Your task to perform on an android device: Do I have any events today? Image 0: 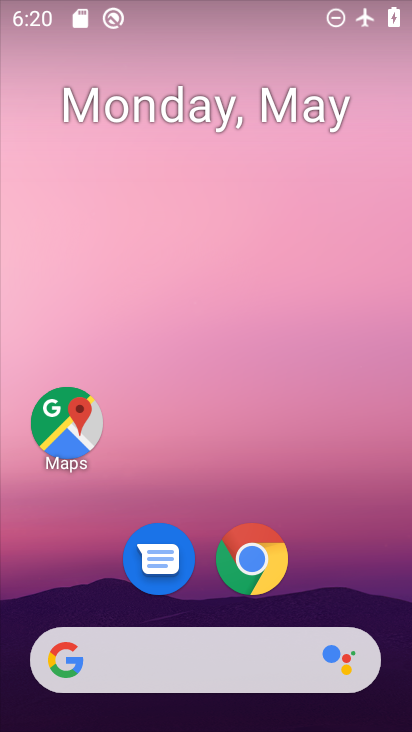
Step 0: drag from (309, 513) to (252, 65)
Your task to perform on an android device: Do I have any events today? Image 1: 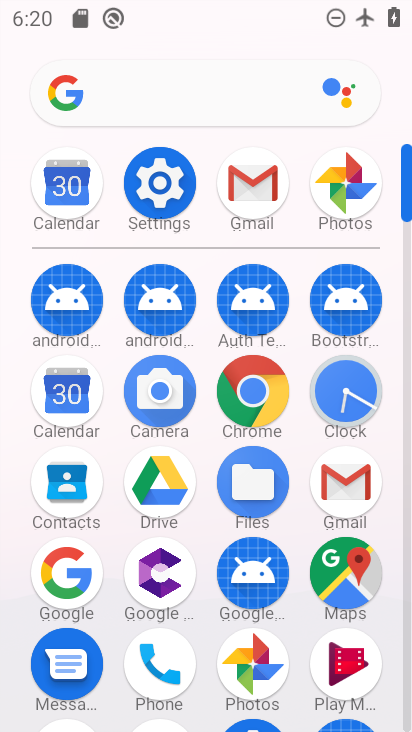
Step 1: click (61, 371)
Your task to perform on an android device: Do I have any events today? Image 2: 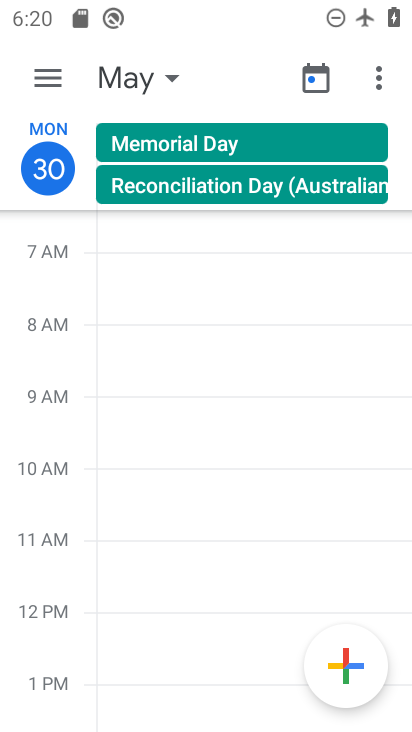
Step 2: task complete